Your task to perform on an android device: Go to sound settings Image 0: 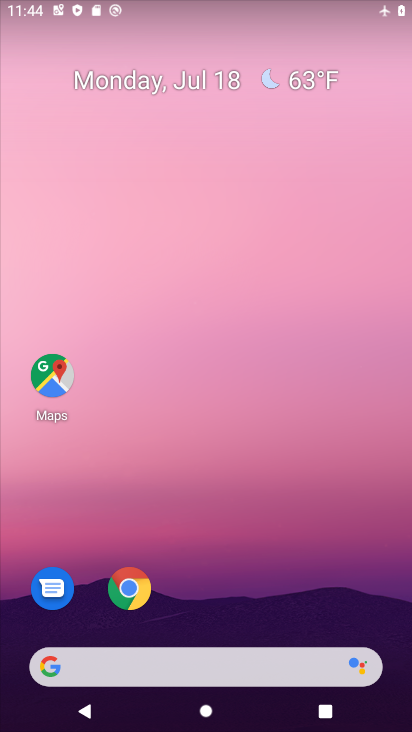
Step 0: drag from (173, 557) to (278, 18)
Your task to perform on an android device: Go to sound settings Image 1: 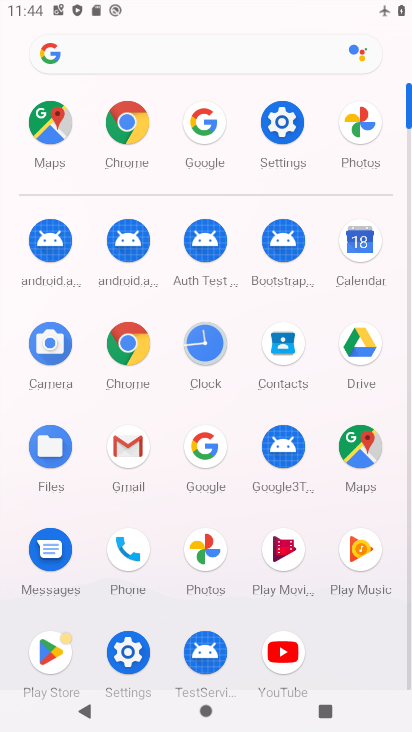
Step 1: click (290, 136)
Your task to perform on an android device: Go to sound settings Image 2: 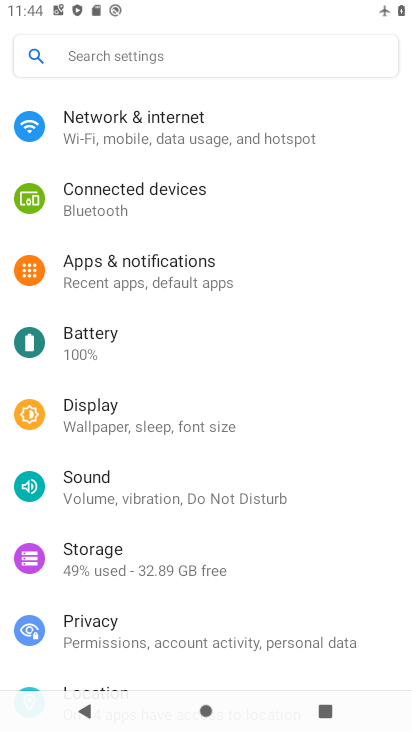
Step 2: click (124, 493)
Your task to perform on an android device: Go to sound settings Image 3: 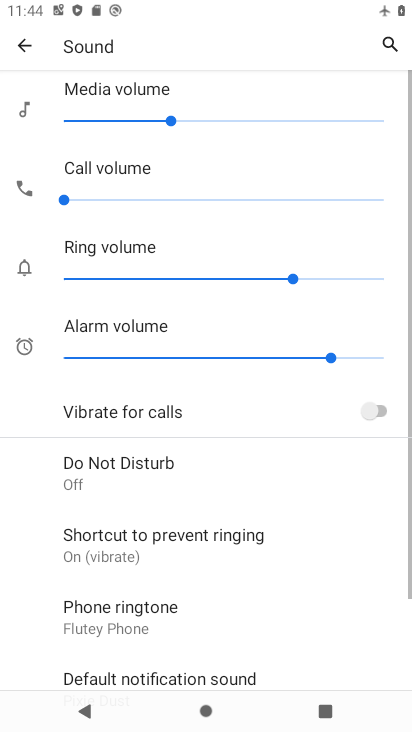
Step 3: task complete